Your task to perform on an android device: choose inbox layout in the gmail app Image 0: 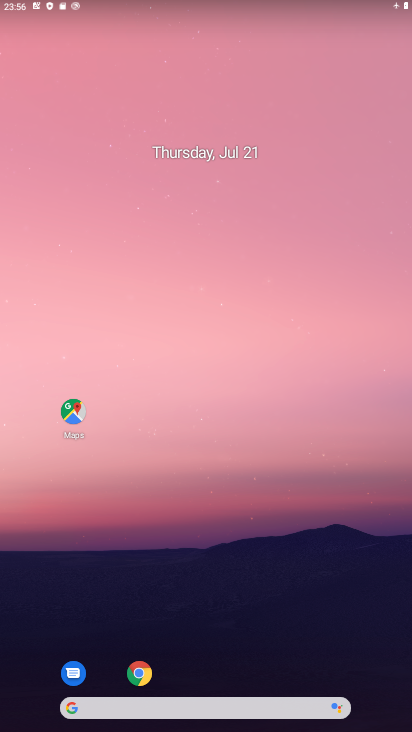
Step 0: drag from (276, 608) to (263, 17)
Your task to perform on an android device: choose inbox layout in the gmail app Image 1: 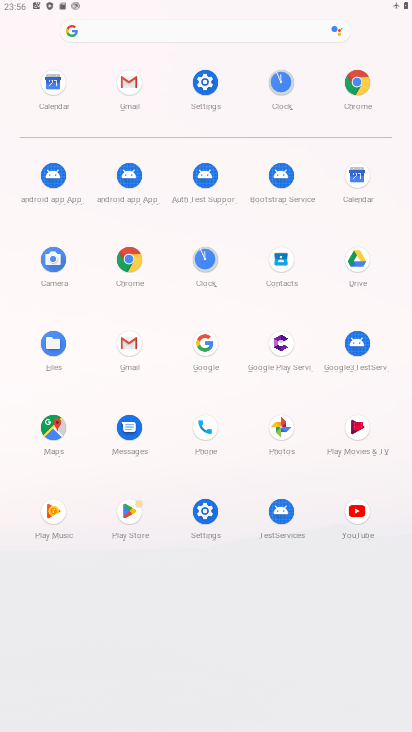
Step 1: click (122, 89)
Your task to perform on an android device: choose inbox layout in the gmail app Image 2: 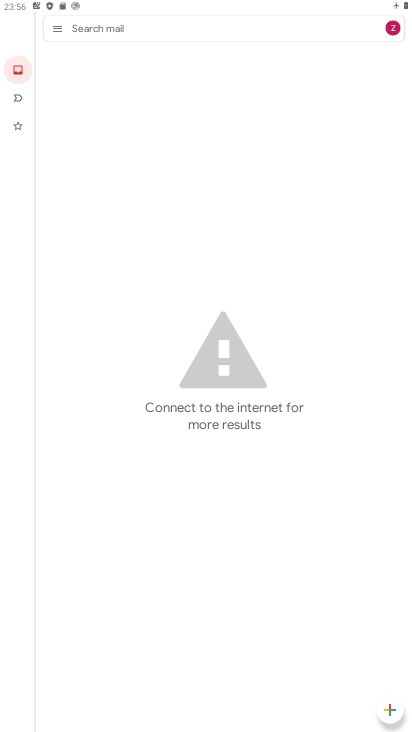
Step 2: click (53, 28)
Your task to perform on an android device: choose inbox layout in the gmail app Image 3: 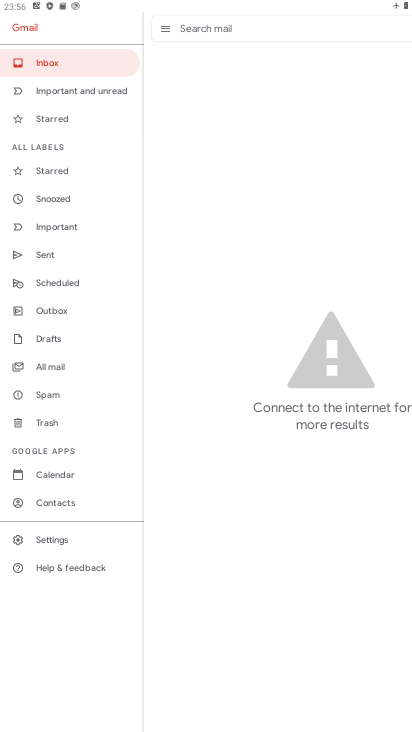
Step 3: click (80, 540)
Your task to perform on an android device: choose inbox layout in the gmail app Image 4: 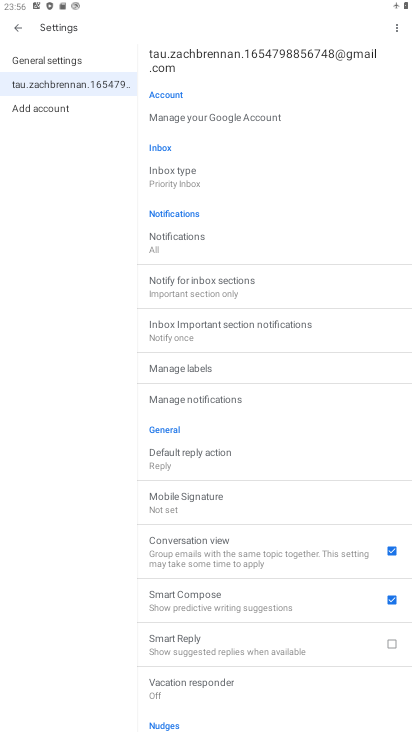
Step 4: click (204, 177)
Your task to perform on an android device: choose inbox layout in the gmail app Image 5: 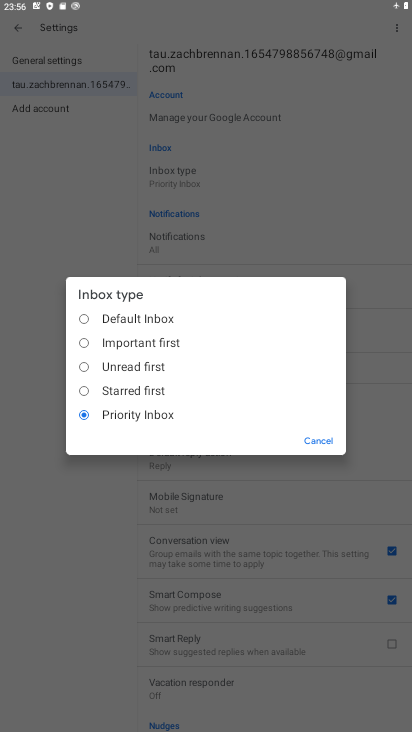
Step 5: click (120, 319)
Your task to perform on an android device: choose inbox layout in the gmail app Image 6: 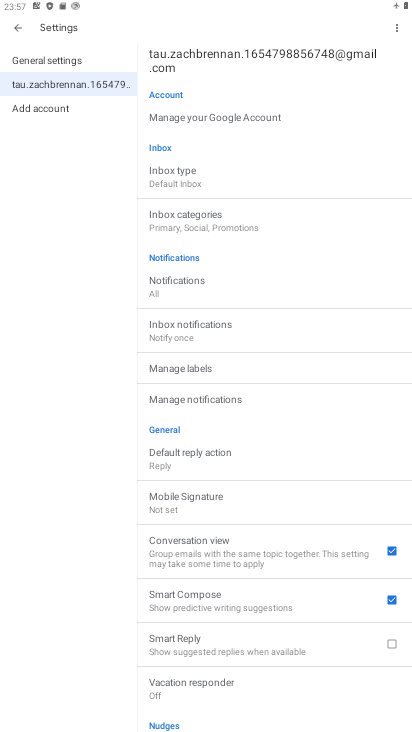
Step 6: click (191, 184)
Your task to perform on an android device: choose inbox layout in the gmail app Image 7: 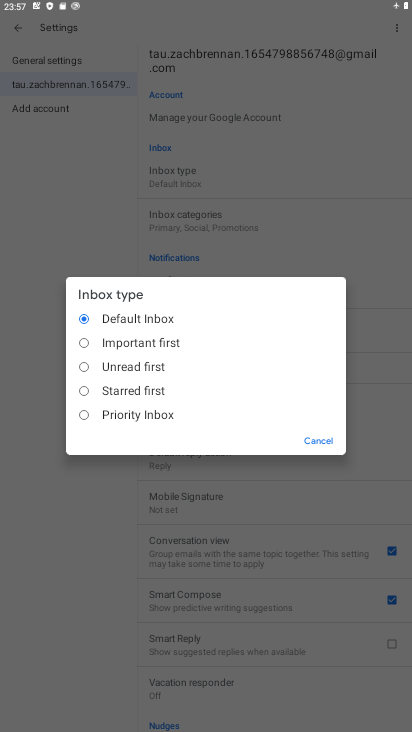
Step 7: click (126, 419)
Your task to perform on an android device: choose inbox layout in the gmail app Image 8: 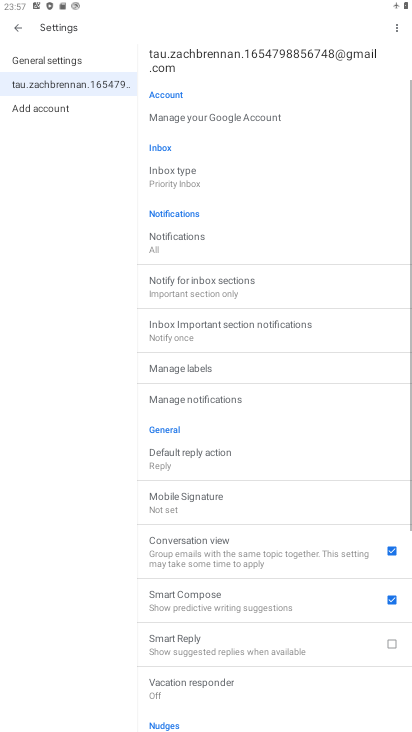
Step 8: task complete